Your task to perform on an android device: What's on my calendar tomorrow? Image 0: 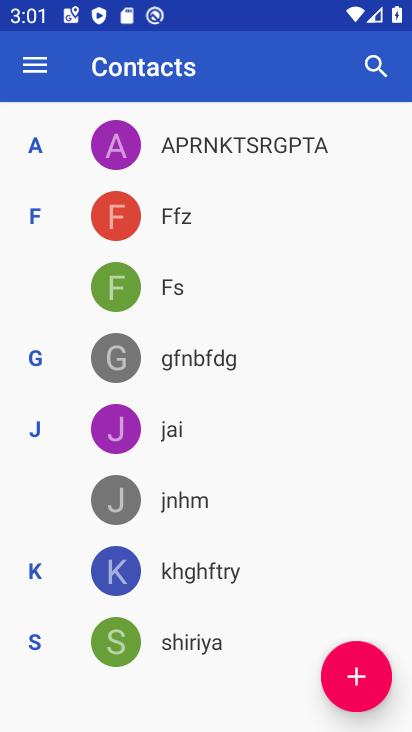
Step 0: press home button
Your task to perform on an android device: What's on my calendar tomorrow? Image 1: 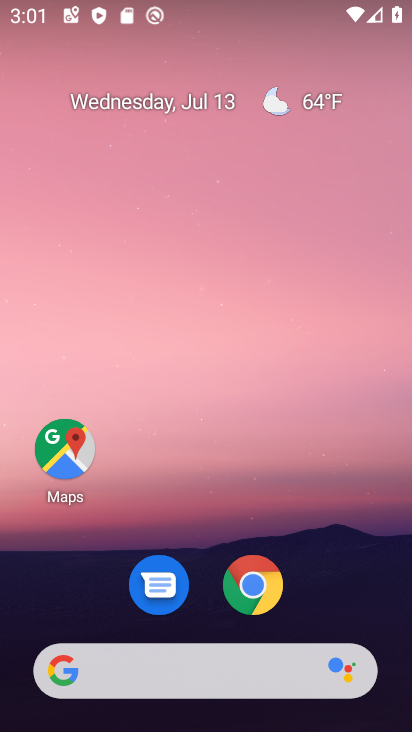
Step 1: drag from (175, 672) to (300, 105)
Your task to perform on an android device: What's on my calendar tomorrow? Image 2: 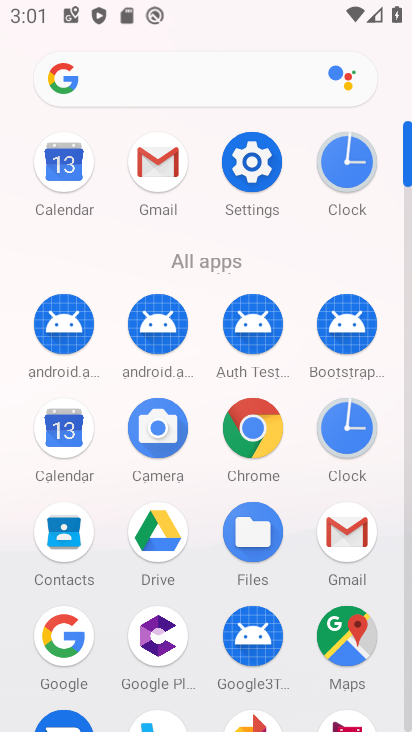
Step 2: click (72, 445)
Your task to perform on an android device: What's on my calendar tomorrow? Image 3: 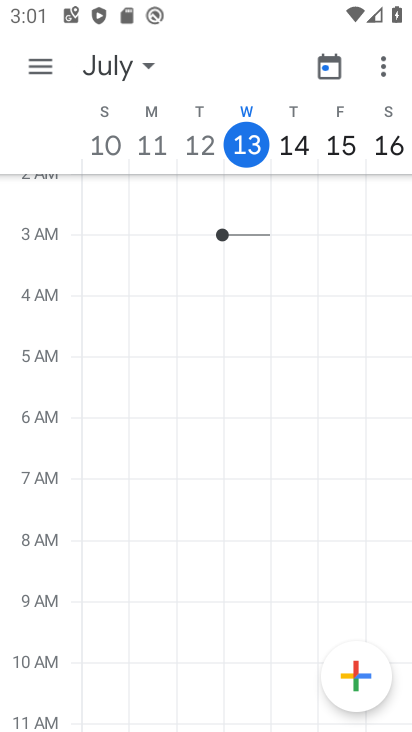
Step 3: click (120, 81)
Your task to perform on an android device: What's on my calendar tomorrow? Image 4: 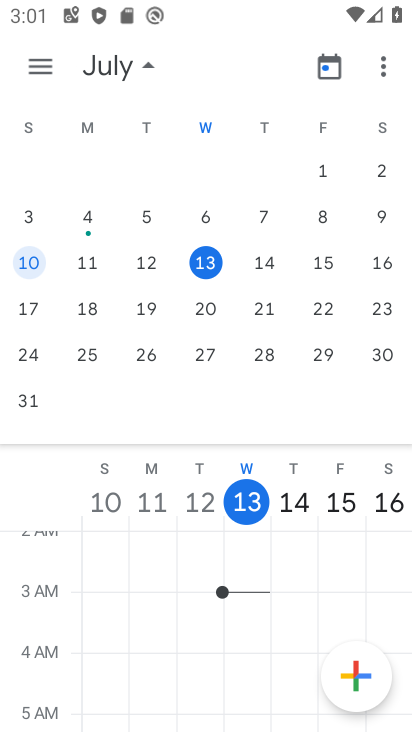
Step 4: click (265, 250)
Your task to perform on an android device: What's on my calendar tomorrow? Image 5: 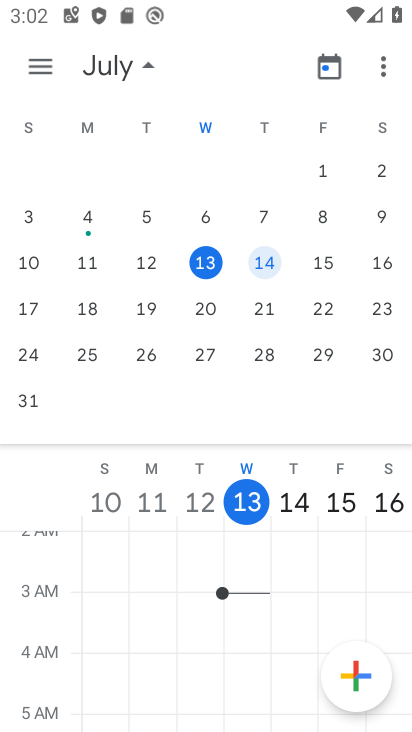
Step 5: click (36, 65)
Your task to perform on an android device: What's on my calendar tomorrow? Image 6: 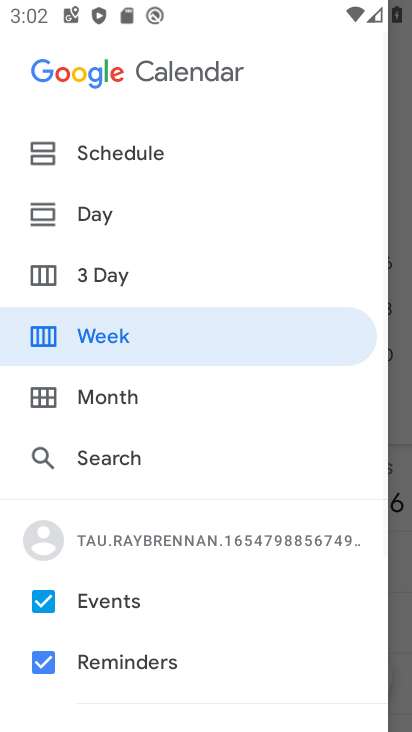
Step 6: click (92, 213)
Your task to perform on an android device: What's on my calendar tomorrow? Image 7: 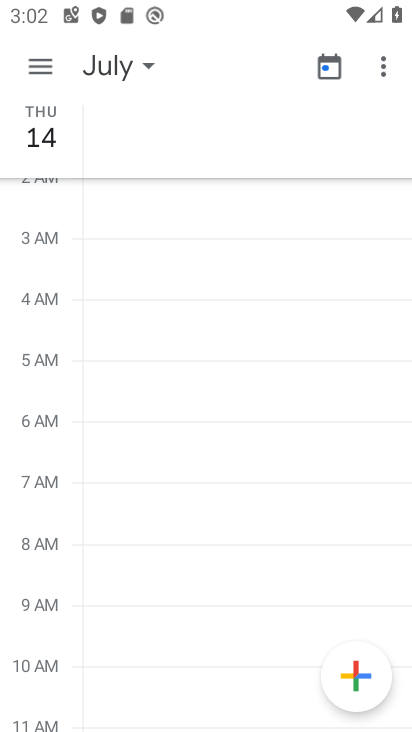
Step 7: click (30, 57)
Your task to perform on an android device: What's on my calendar tomorrow? Image 8: 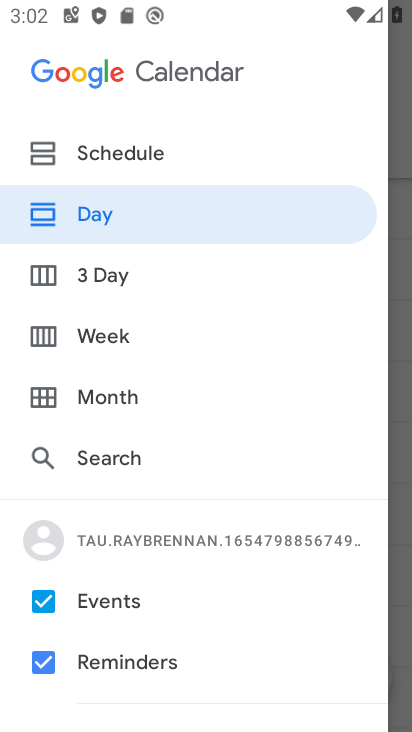
Step 8: click (87, 150)
Your task to perform on an android device: What's on my calendar tomorrow? Image 9: 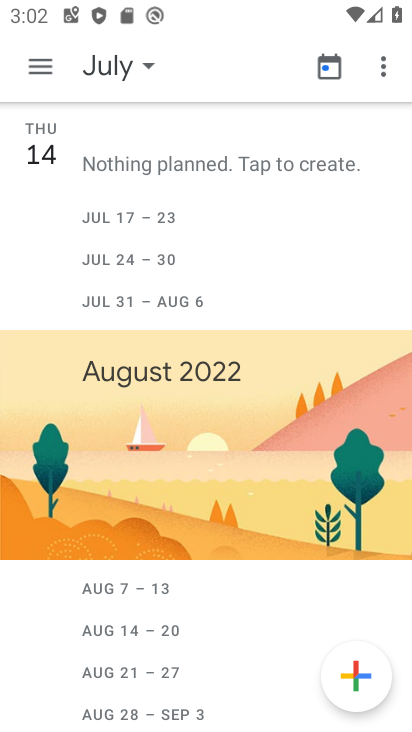
Step 9: task complete